Your task to perform on an android device: Go to display settings Image 0: 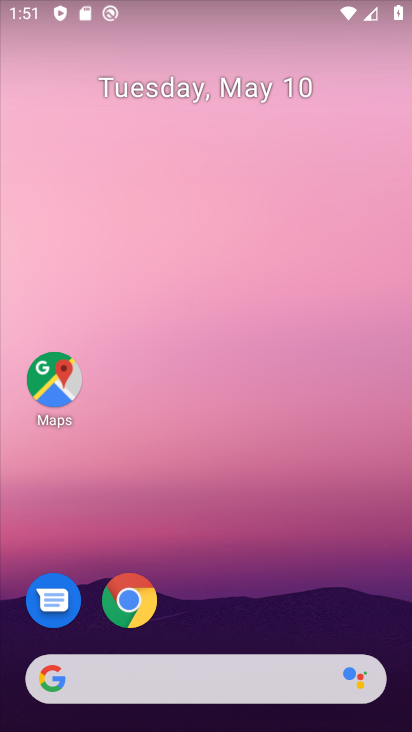
Step 0: drag from (212, 649) to (210, 193)
Your task to perform on an android device: Go to display settings Image 1: 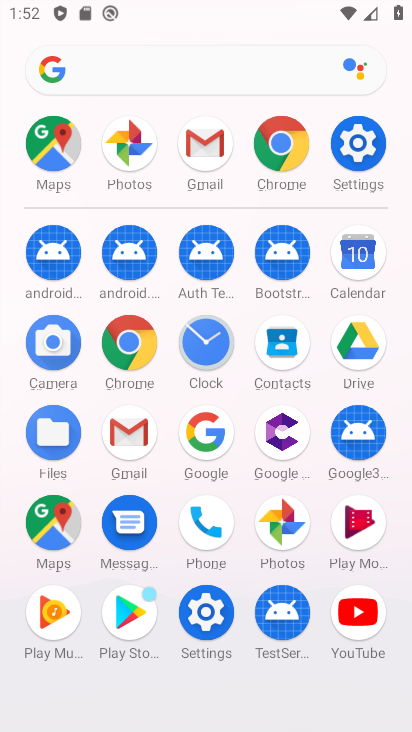
Step 1: click (210, 623)
Your task to perform on an android device: Go to display settings Image 2: 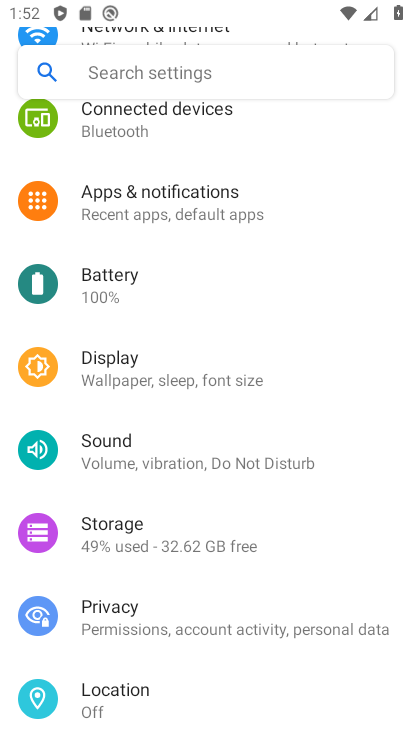
Step 2: click (205, 375)
Your task to perform on an android device: Go to display settings Image 3: 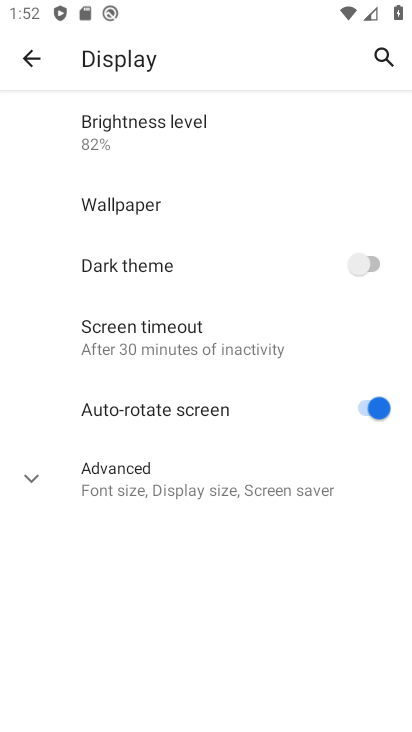
Step 3: task complete